Your task to perform on an android device: Search for panasonic triple a on ebay, select the first entry, add it to the cart, then select checkout. Image 0: 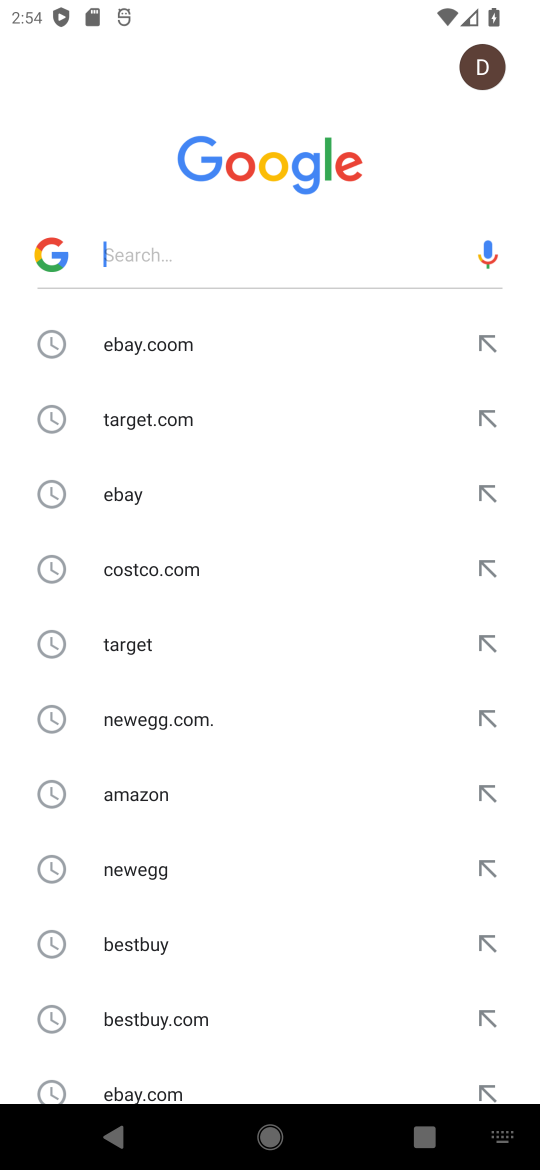
Step 0: press home button
Your task to perform on an android device: Search for panasonic triple a on ebay, select the first entry, add it to the cart, then select checkout. Image 1: 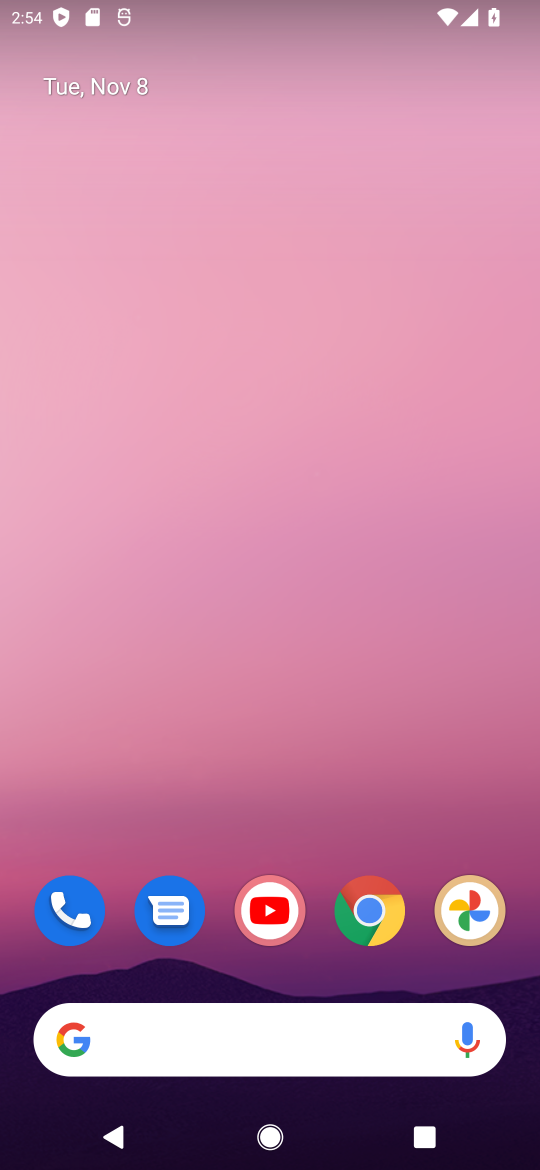
Step 1: drag from (292, 987) to (338, 66)
Your task to perform on an android device: Search for panasonic triple a on ebay, select the first entry, add it to the cart, then select checkout. Image 2: 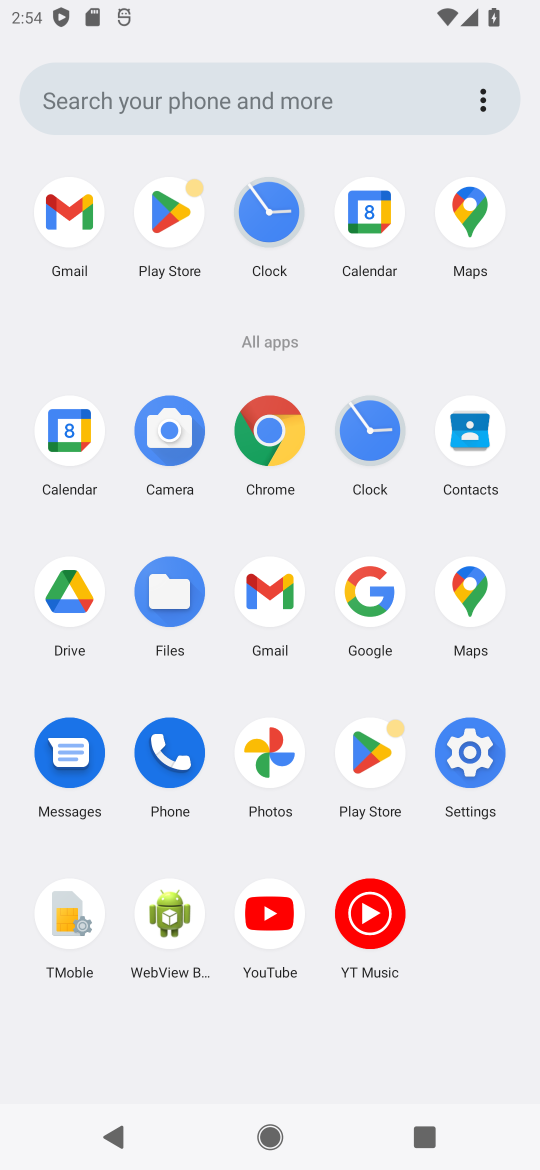
Step 2: click (275, 434)
Your task to perform on an android device: Search for panasonic triple a on ebay, select the first entry, add it to the cart, then select checkout. Image 3: 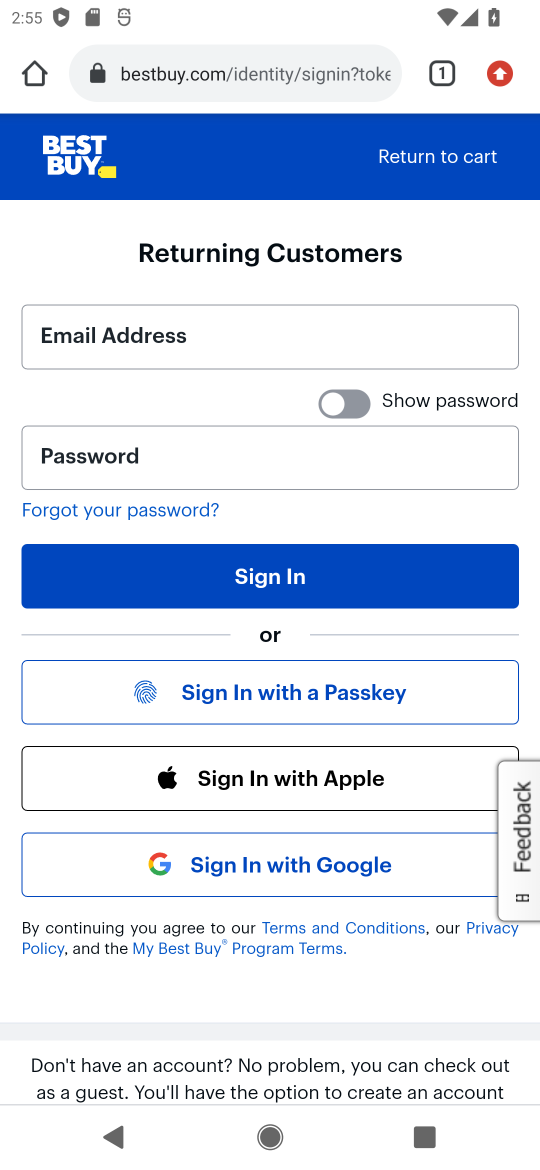
Step 3: click (287, 60)
Your task to perform on an android device: Search for panasonic triple a on ebay, select the first entry, add it to the cart, then select checkout. Image 4: 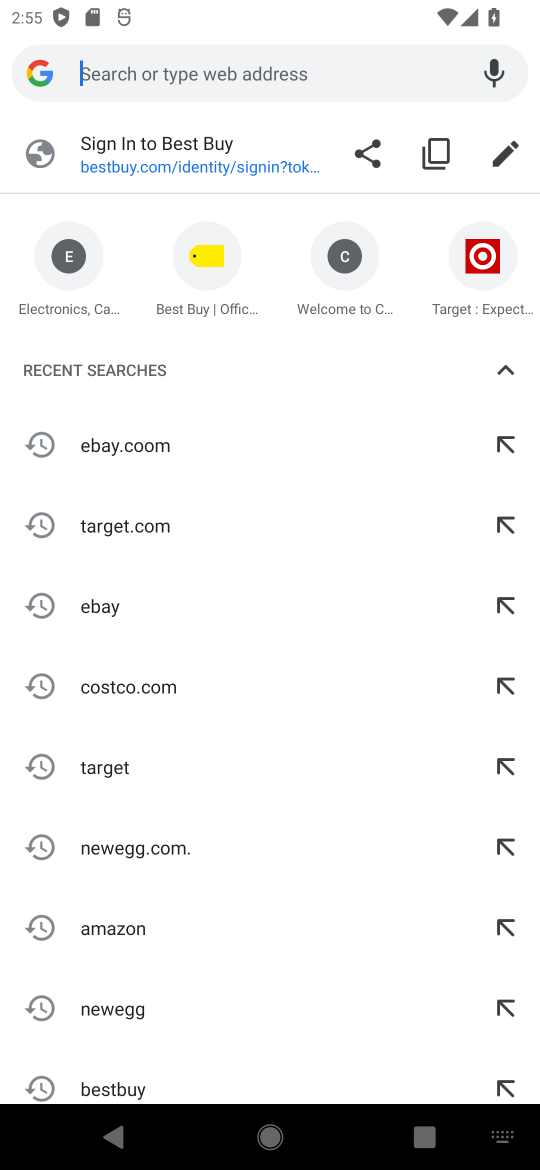
Step 4: type "ebay.com"
Your task to perform on an android device: Search for panasonic triple a on ebay, select the first entry, add it to the cart, then select checkout. Image 5: 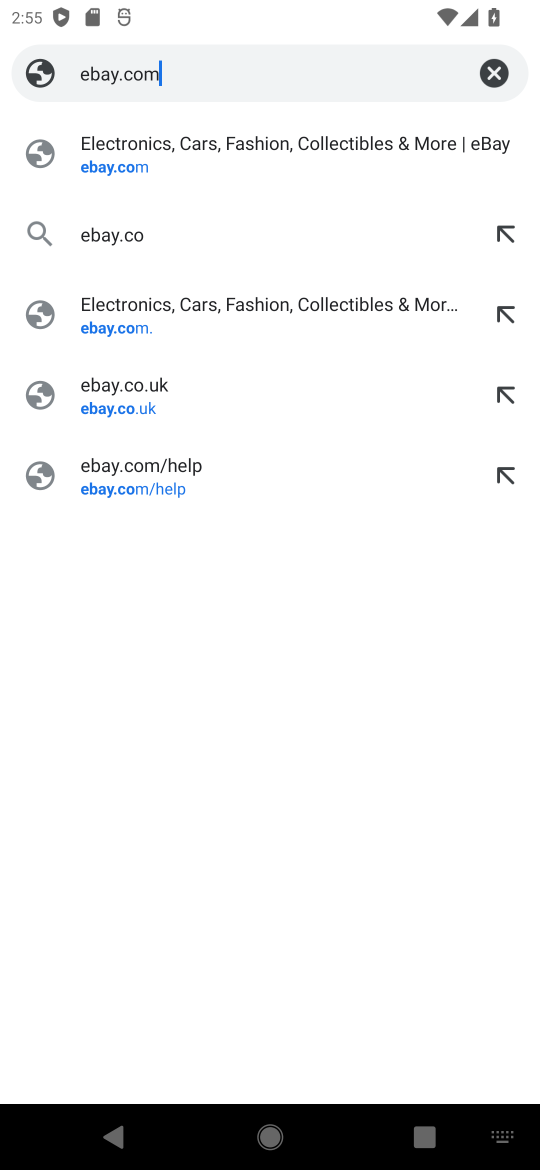
Step 5: press enter
Your task to perform on an android device: Search for panasonic triple a on ebay, select the first entry, add it to the cart, then select checkout. Image 6: 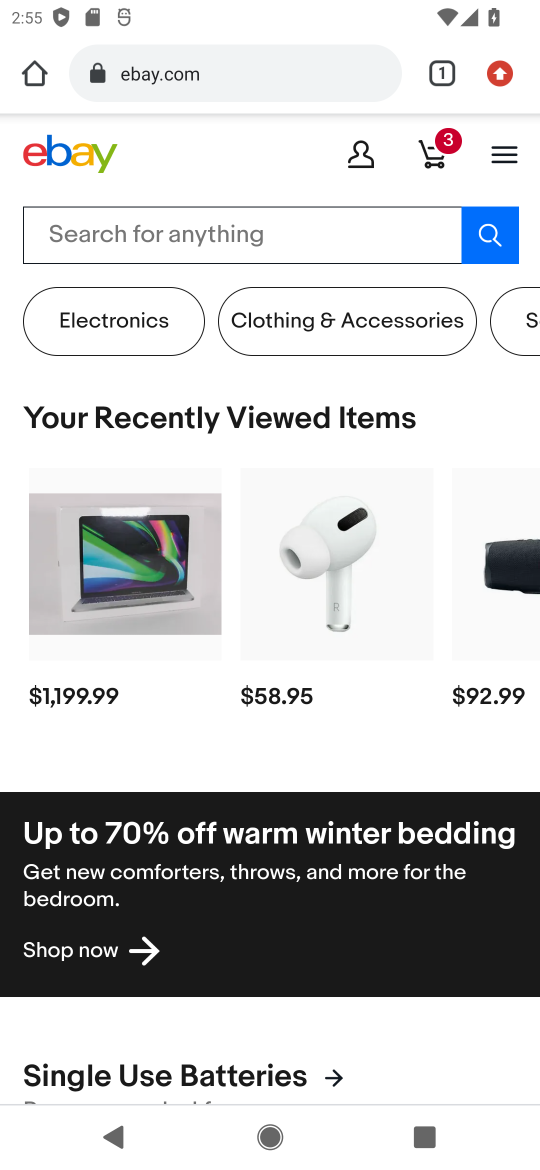
Step 6: click (325, 244)
Your task to perform on an android device: Search for panasonic triple a on ebay, select the first entry, add it to the cart, then select checkout. Image 7: 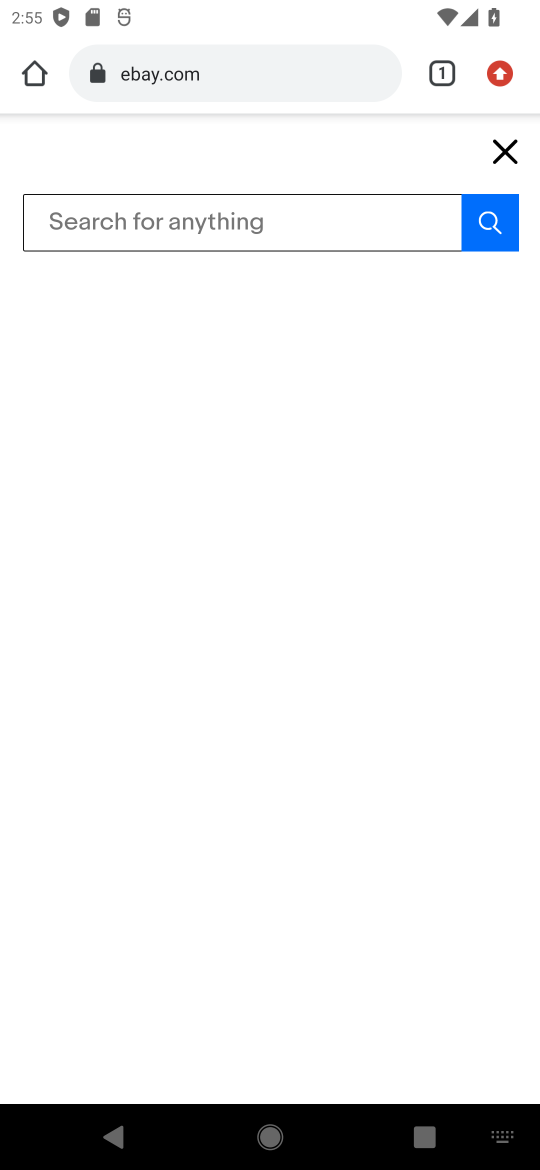
Step 7: type "panasonic triple a"
Your task to perform on an android device: Search for panasonic triple a on ebay, select the first entry, add it to the cart, then select checkout. Image 8: 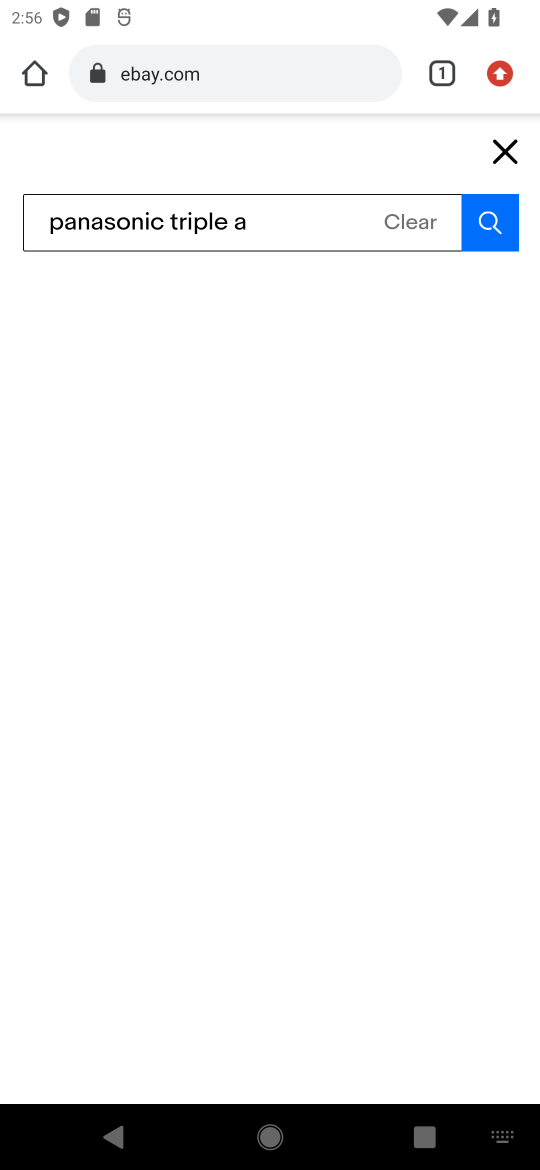
Step 8: press enter
Your task to perform on an android device: Search for panasonic triple a on ebay, select the first entry, add it to the cart, then select checkout. Image 9: 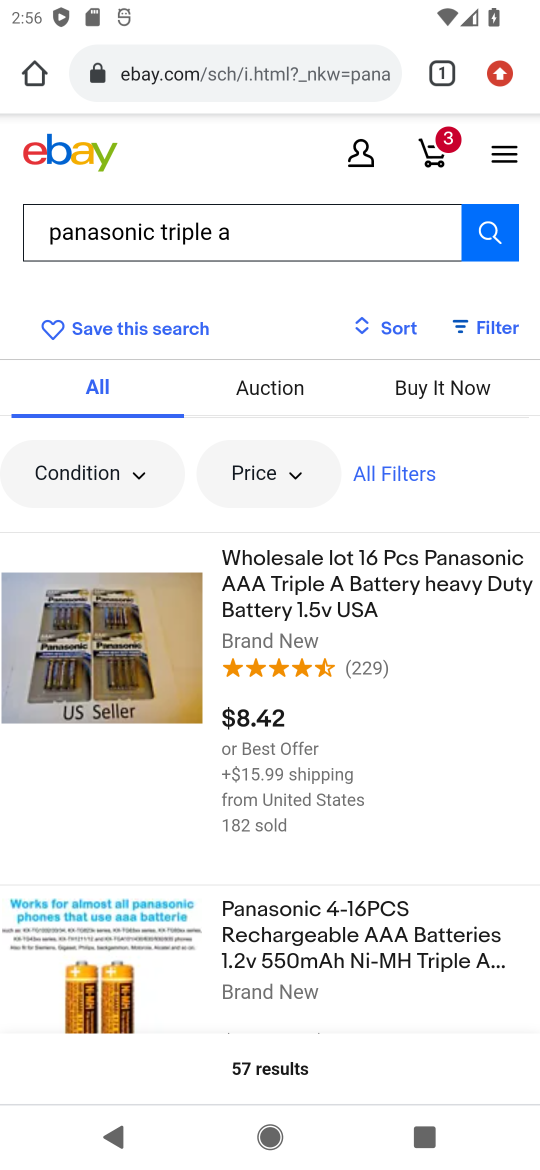
Step 9: drag from (270, 755) to (333, 503)
Your task to perform on an android device: Search for panasonic triple a on ebay, select the first entry, add it to the cart, then select checkout. Image 10: 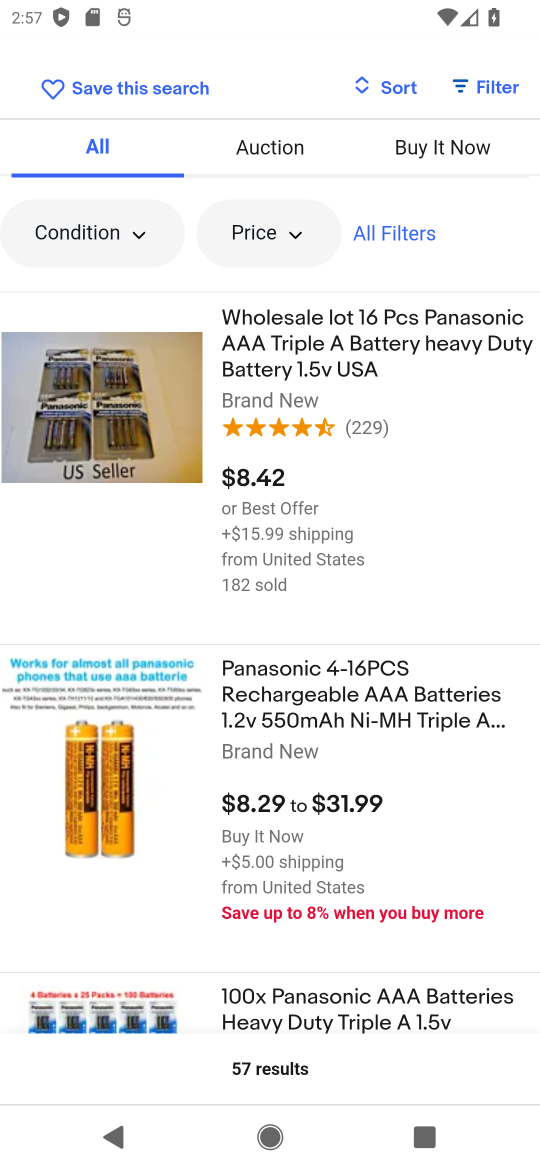
Step 10: click (106, 396)
Your task to perform on an android device: Search for panasonic triple a on ebay, select the first entry, add it to the cart, then select checkout. Image 11: 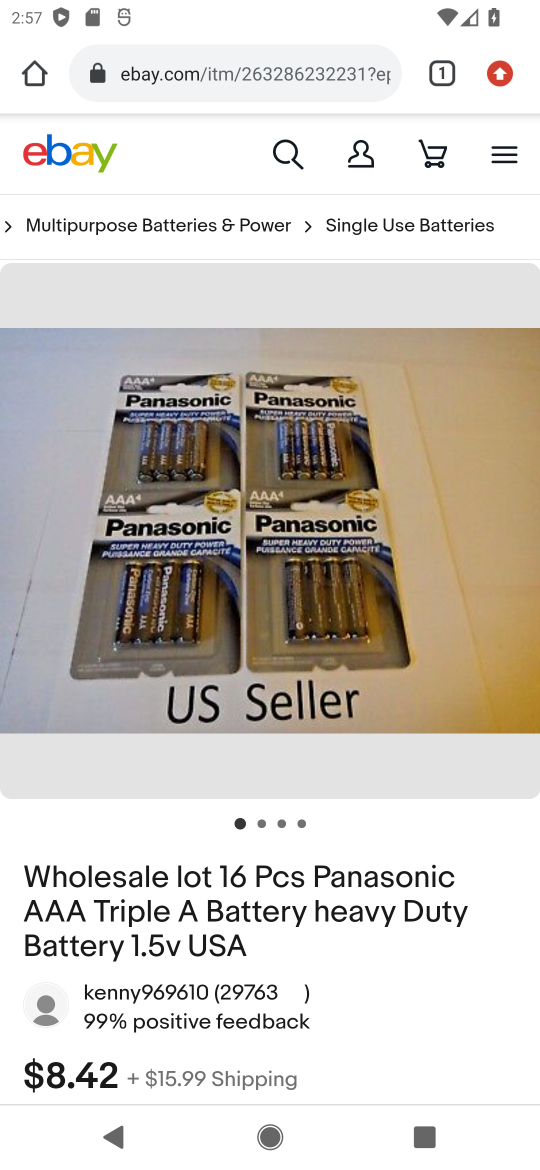
Step 11: drag from (287, 920) to (335, 198)
Your task to perform on an android device: Search for panasonic triple a on ebay, select the first entry, add it to the cart, then select checkout. Image 12: 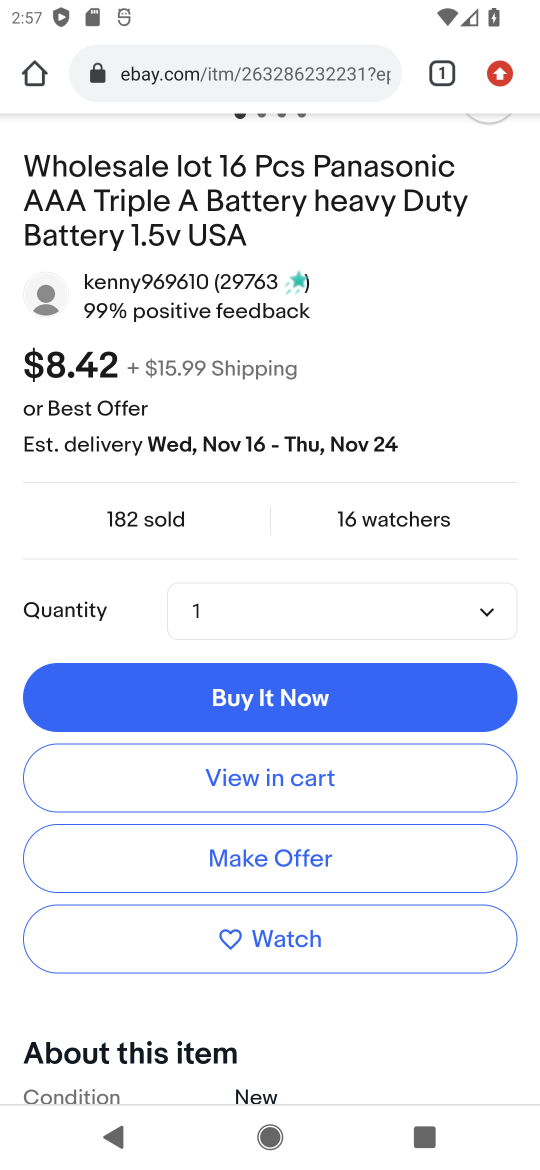
Step 12: click (345, 778)
Your task to perform on an android device: Search for panasonic triple a on ebay, select the first entry, add it to the cart, then select checkout. Image 13: 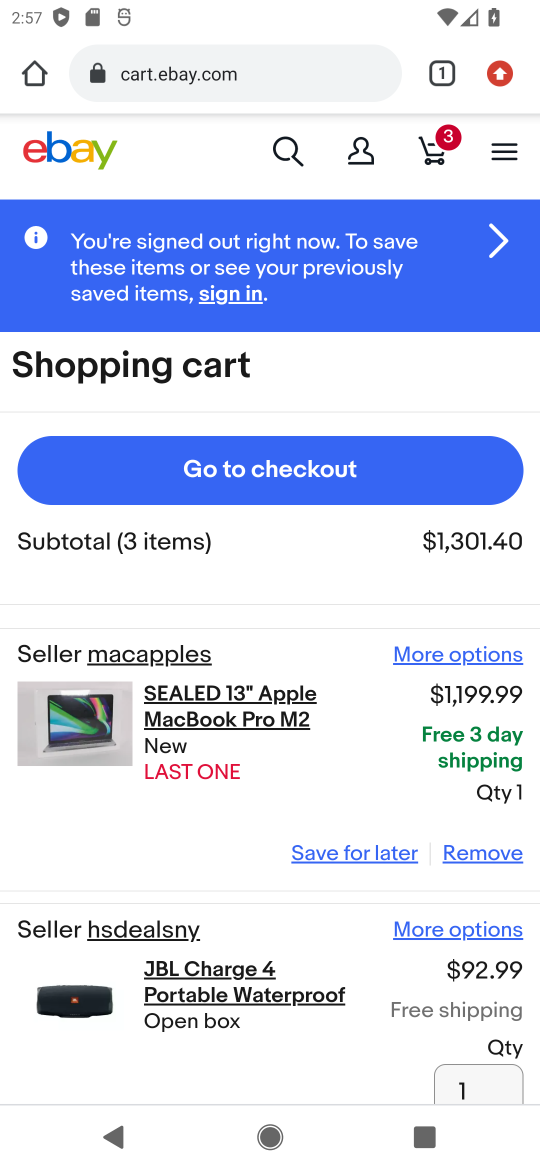
Step 13: click (369, 478)
Your task to perform on an android device: Search for panasonic triple a on ebay, select the first entry, add it to the cart, then select checkout. Image 14: 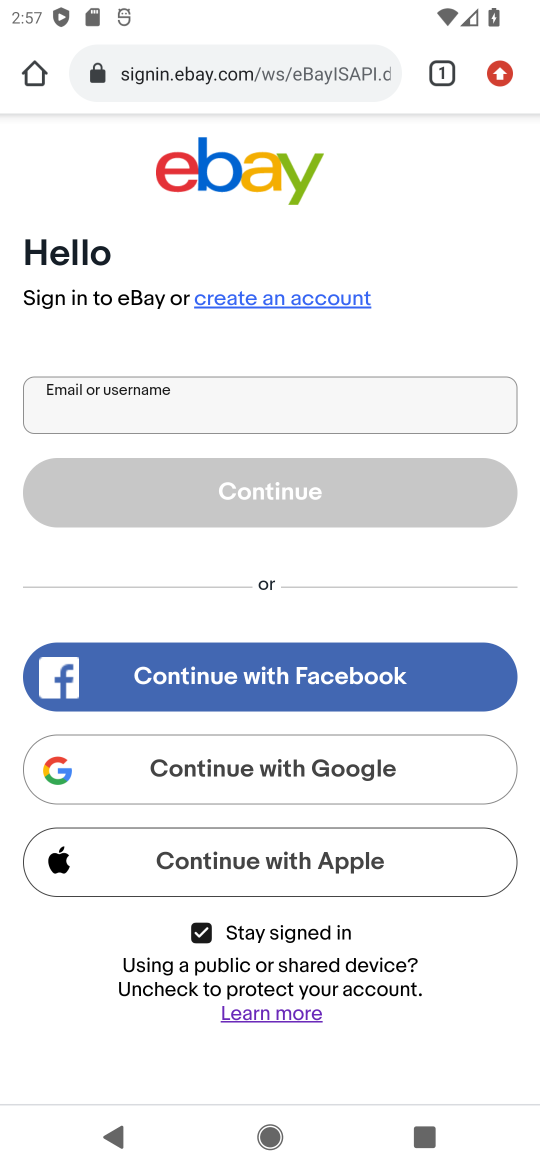
Step 14: task complete